Your task to perform on an android device: Search for Italian restaurants on Maps Image 0: 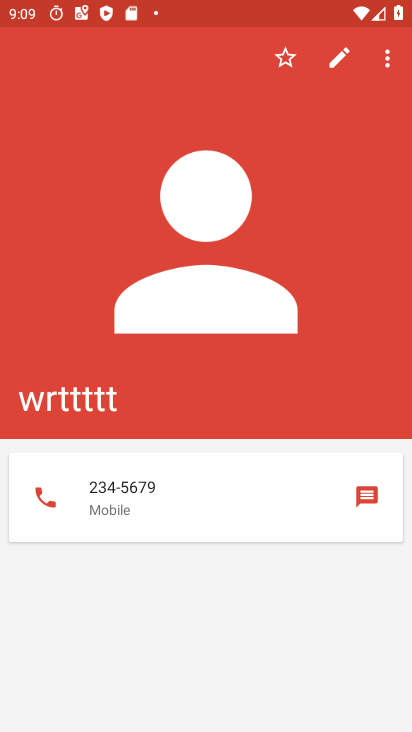
Step 0: press back button
Your task to perform on an android device: Search for Italian restaurants on Maps Image 1: 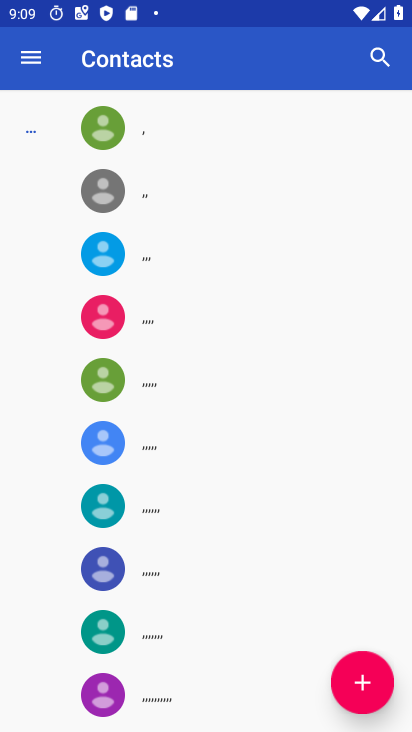
Step 1: press home button
Your task to perform on an android device: Search for Italian restaurants on Maps Image 2: 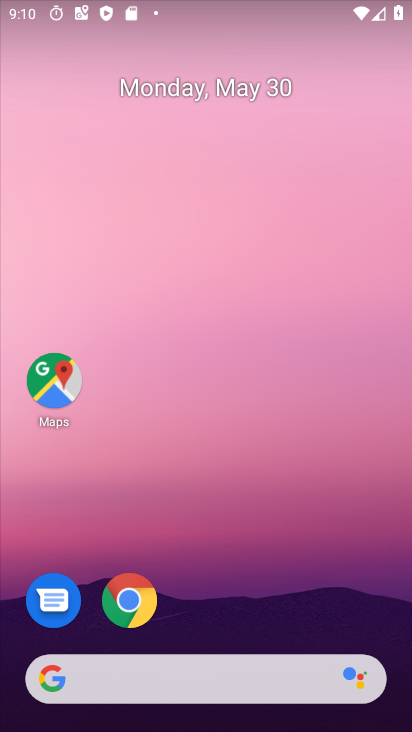
Step 2: drag from (266, 593) to (258, 25)
Your task to perform on an android device: Search for Italian restaurants on Maps Image 3: 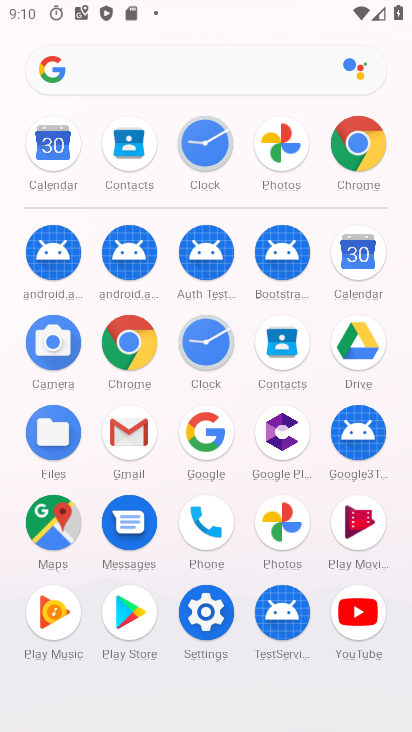
Step 3: click (49, 518)
Your task to perform on an android device: Search for Italian restaurants on Maps Image 4: 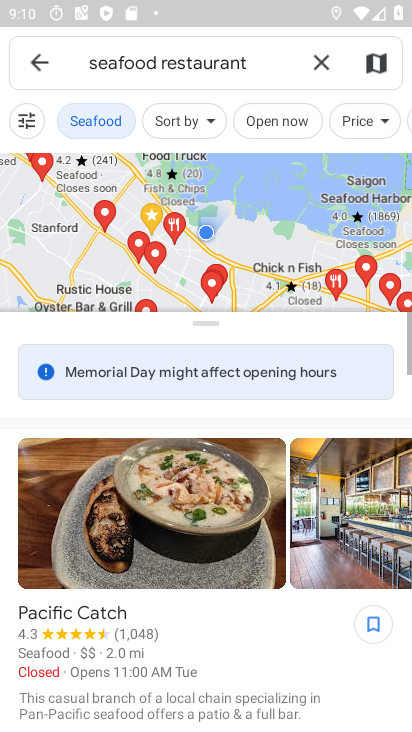
Step 4: click (327, 67)
Your task to perform on an android device: Search for Italian restaurants on Maps Image 5: 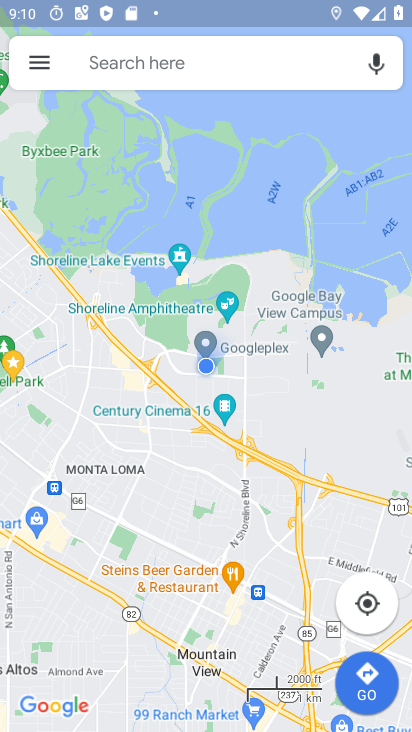
Step 5: click (218, 56)
Your task to perform on an android device: Search for Italian restaurants on Maps Image 6: 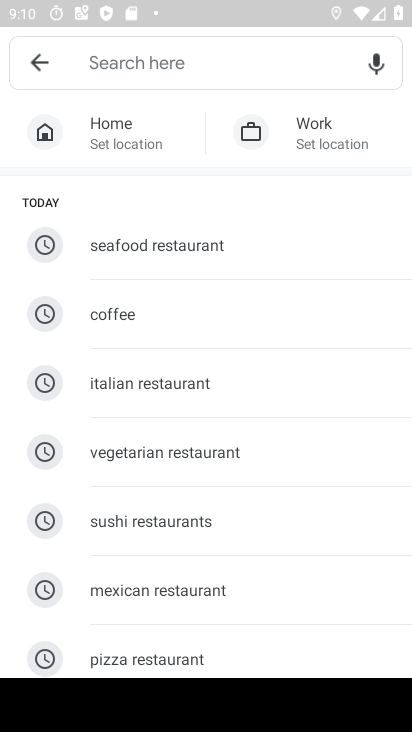
Step 6: click (149, 383)
Your task to perform on an android device: Search for Italian restaurants on Maps Image 7: 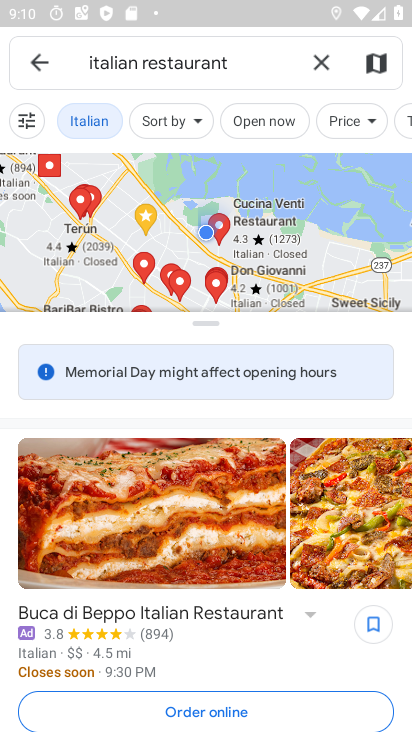
Step 7: task complete